Your task to perform on an android device: Open privacy settings Image 0: 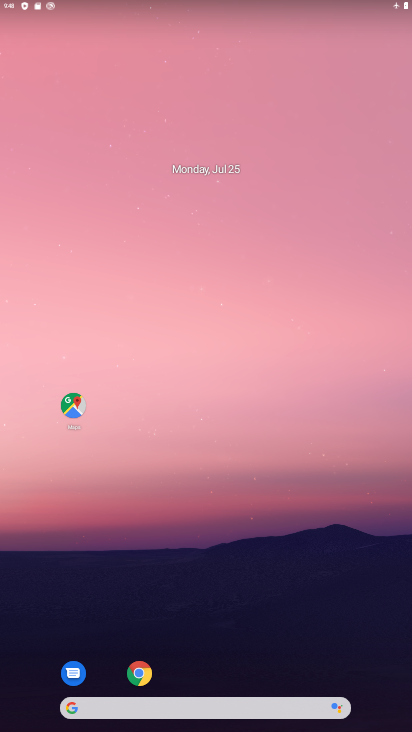
Step 0: click (135, 676)
Your task to perform on an android device: Open privacy settings Image 1: 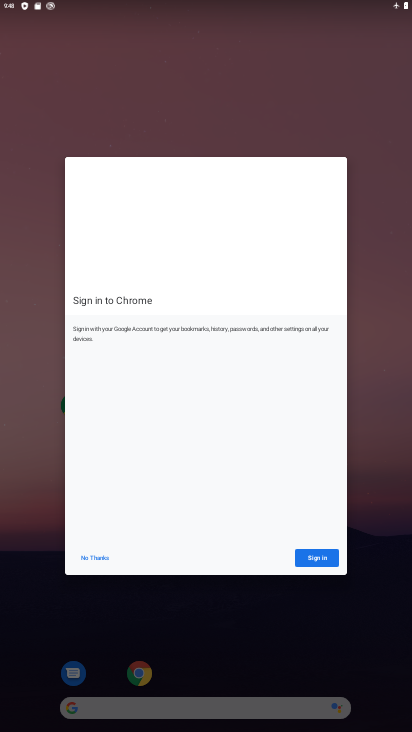
Step 1: task complete